Your task to perform on an android device: Go to ESPN.com Image 0: 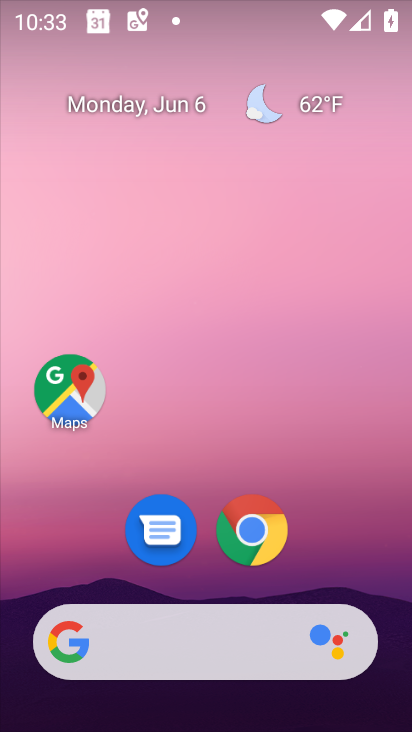
Step 0: drag from (316, 433) to (292, 139)
Your task to perform on an android device: Go to ESPN.com Image 1: 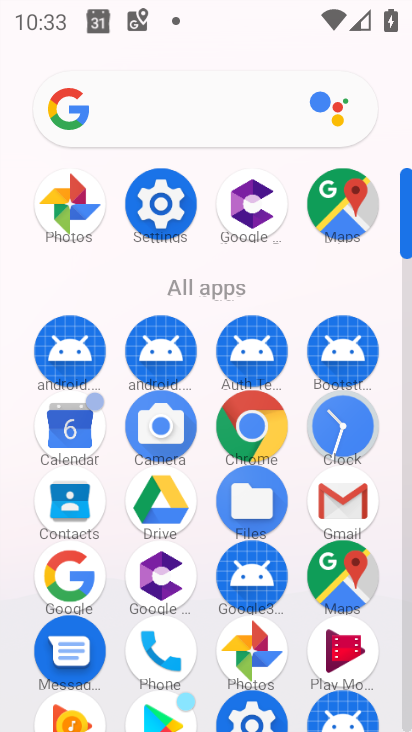
Step 1: click (75, 589)
Your task to perform on an android device: Go to ESPN.com Image 2: 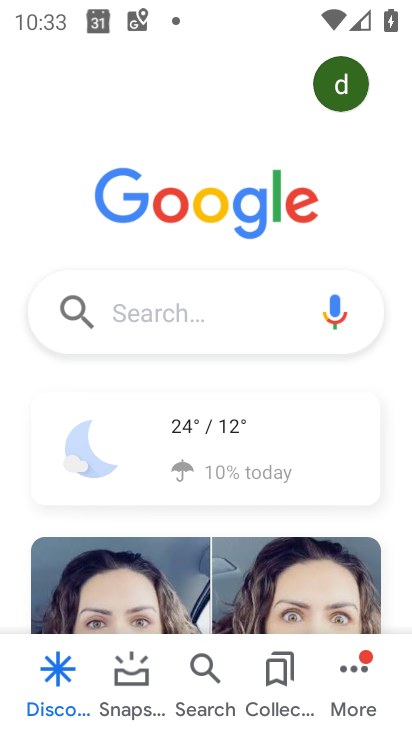
Step 2: click (153, 315)
Your task to perform on an android device: Go to ESPN.com Image 3: 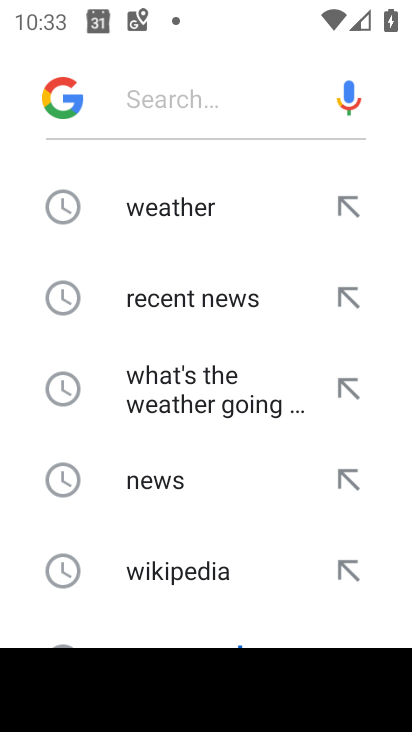
Step 3: drag from (177, 376) to (54, 68)
Your task to perform on an android device: Go to ESPN.com Image 4: 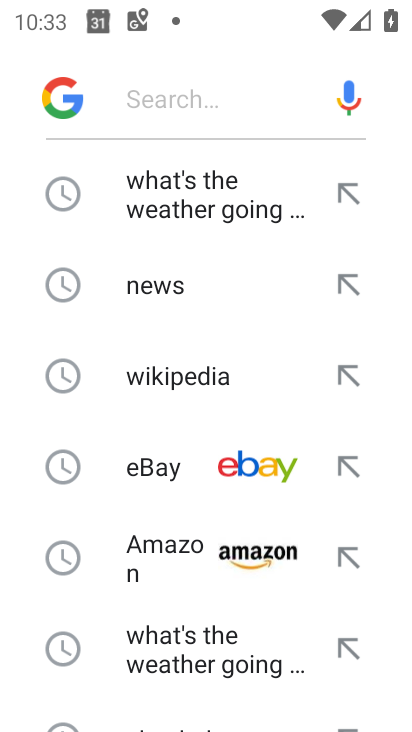
Step 4: drag from (170, 508) to (197, 129)
Your task to perform on an android device: Go to ESPN.com Image 5: 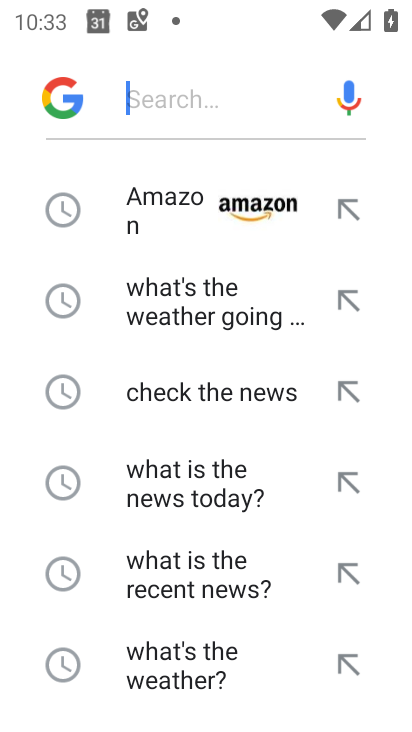
Step 5: type "espn.com"
Your task to perform on an android device: Go to ESPN.com Image 6: 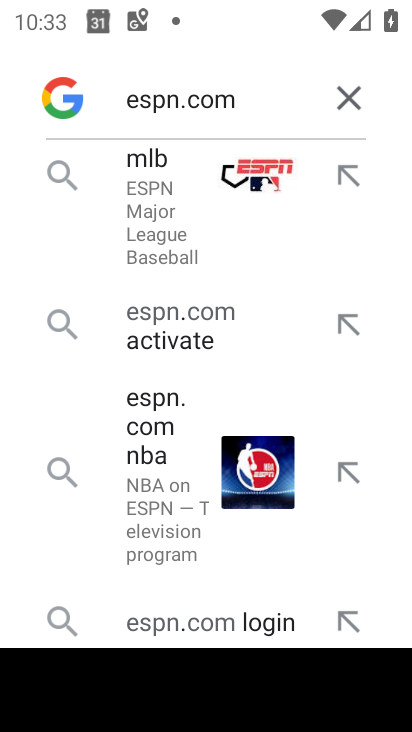
Step 6: drag from (184, 244) to (205, 529)
Your task to perform on an android device: Go to ESPN.com Image 7: 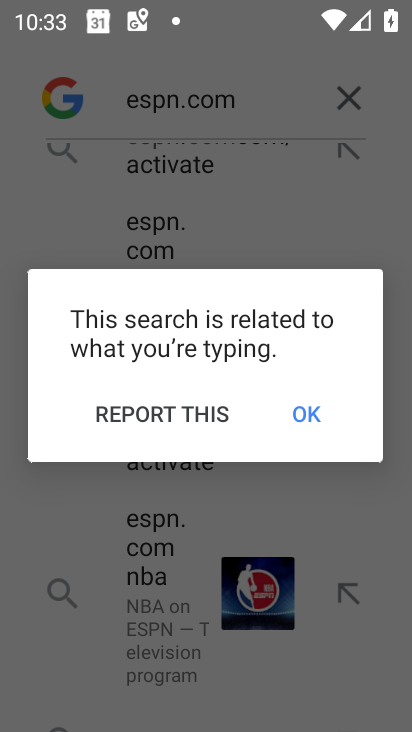
Step 7: click (305, 426)
Your task to perform on an android device: Go to ESPN.com Image 8: 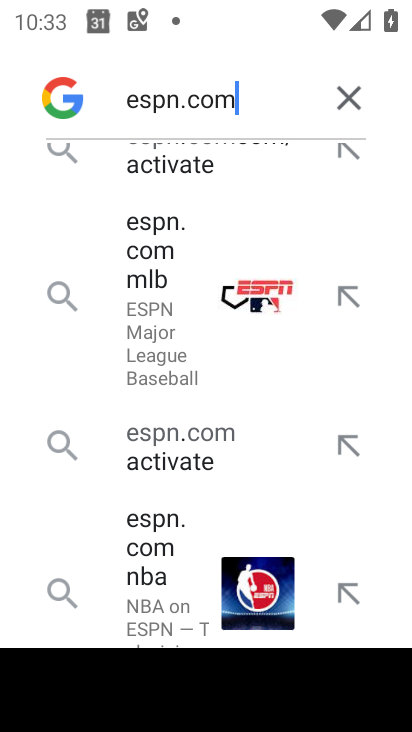
Step 8: drag from (249, 189) to (262, 448)
Your task to perform on an android device: Go to ESPN.com Image 9: 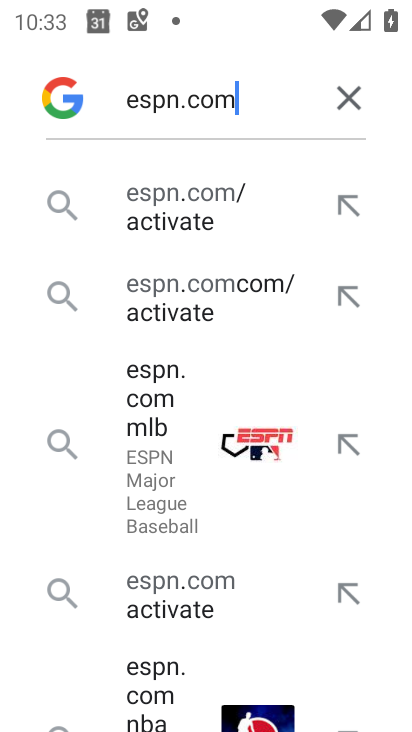
Step 9: drag from (186, 187) to (218, 458)
Your task to perform on an android device: Go to ESPN.com Image 10: 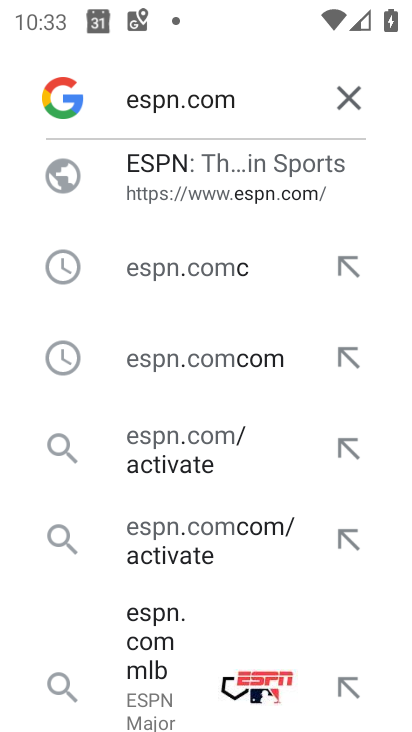
Step 10: drag from (187, 250) to (214, 461)
Your task to perform on an android device: Go to ESPN.com Image 11: 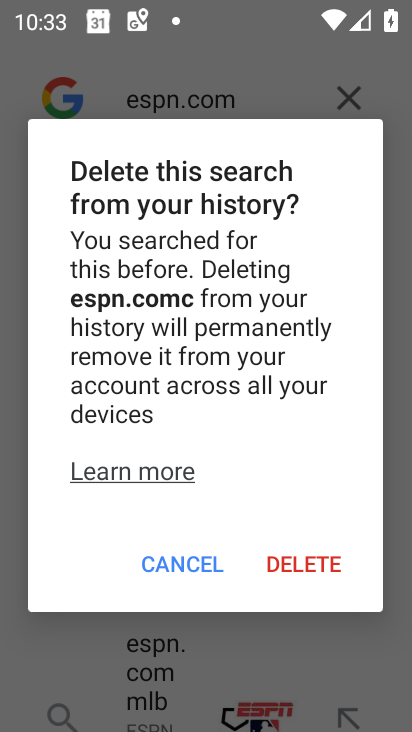
Step 11: click (196, 564)
Your task to perform on an android device: Go to ESPN.com Image 12: 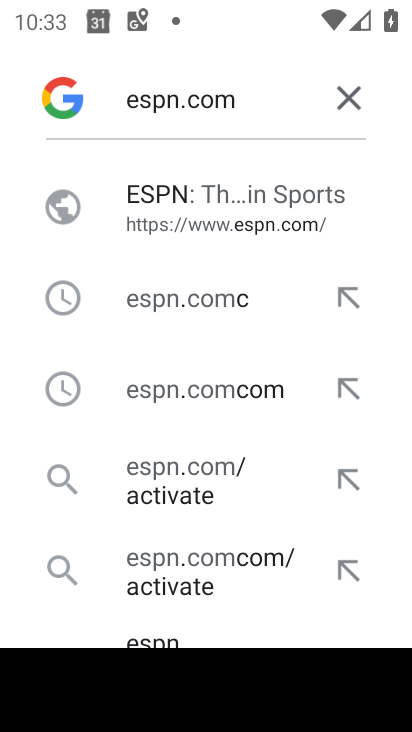
Step 12: click (206, 188)
Your task to perform on an android device: Go to ESPN.com Image 13: 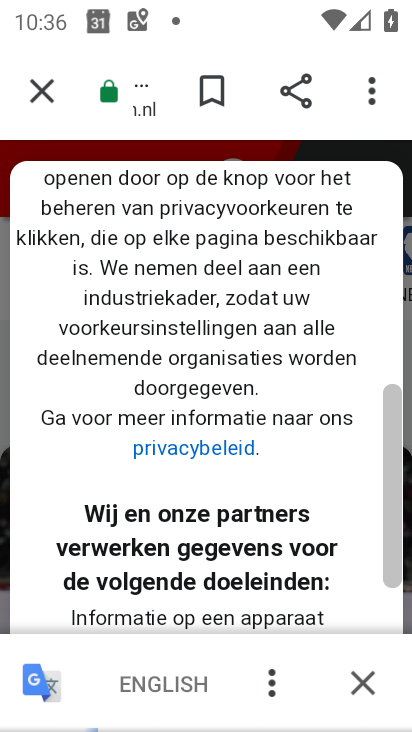
Step 13: task complete